Your task to perform on an android device: turn pop-ups on in chrome Image 0: 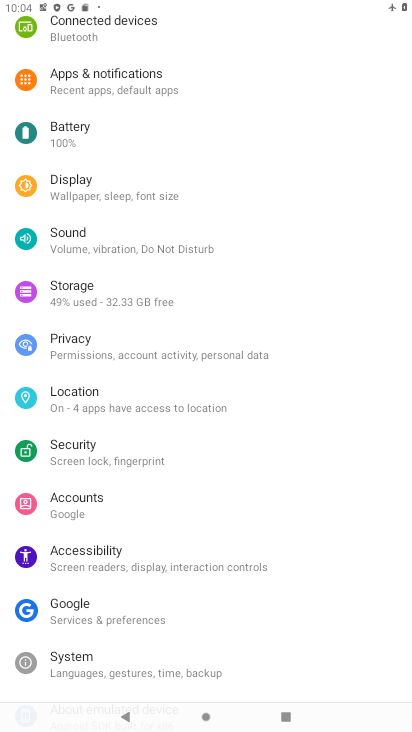
Step 0: press back button
Your task to perform on an android device: turn pop-ups on in chrome Image 1: 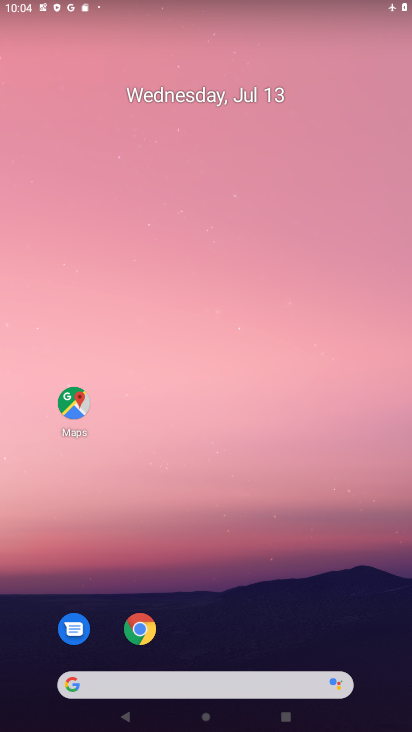
Step 1: drag from (261, 658) to (257, 242)
Your task to perform on an android device: turn pop-ups on in chrome Image 2: 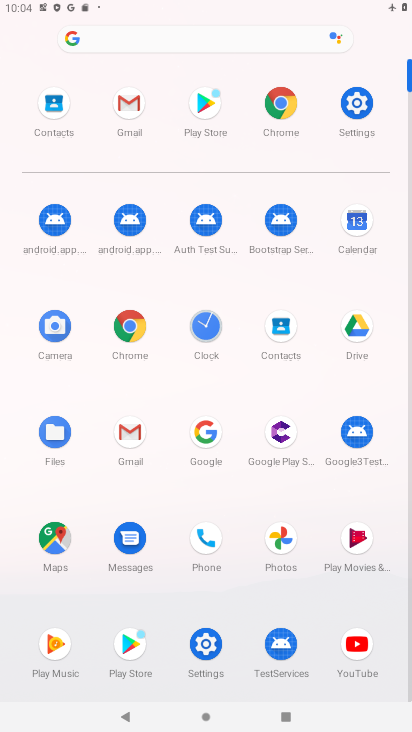
Step 2: click (265, 126)
Your task to perform on an android device: turn pop-ups on in chrome Image 3: 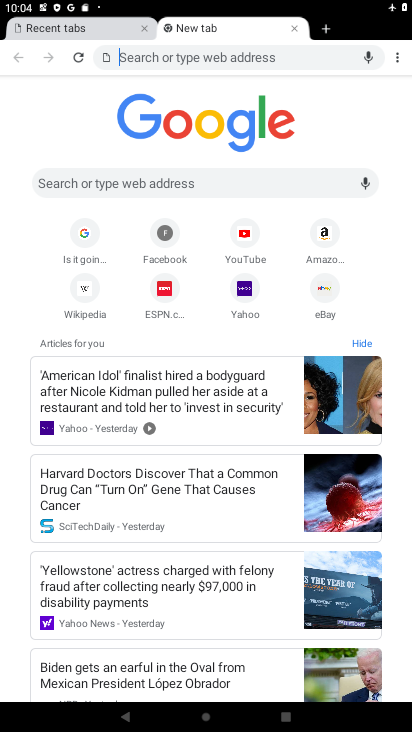
Step 3: click (395, 58)
Your task to perform on an android device: turn pop-ups on in chrome Image 4: 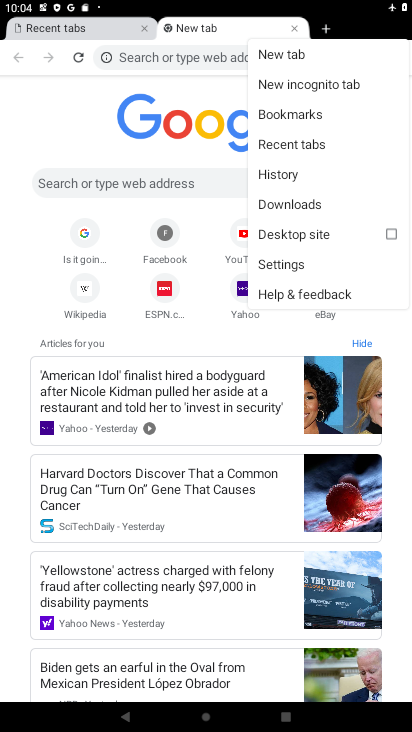
Step 4: click (315, 272)
Your task to perform on an android device: turn pop-ups on in chrome Image 5: 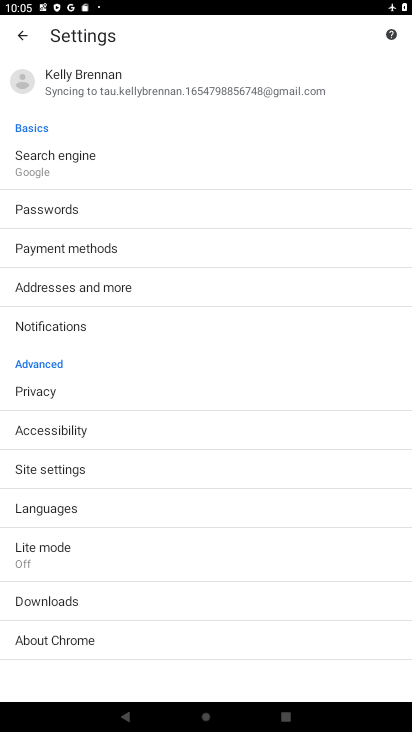
Step 5: click (113, 467)
Your task to perform on an android device: turn pop-ups on in chrome Image 6: 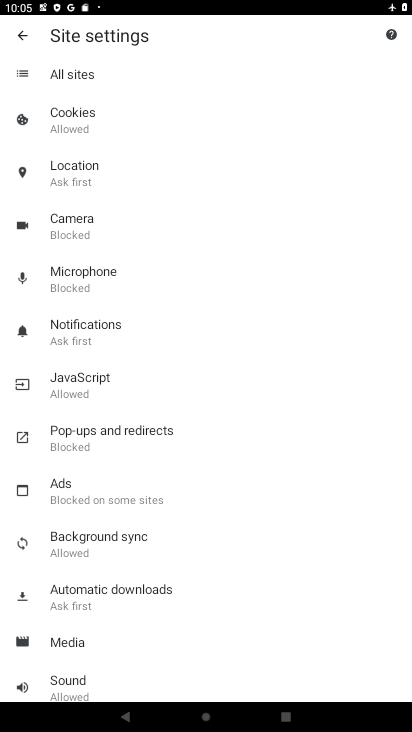
Step 6: task complete